Your task to perform on an android device: Go to display settings Image 0: 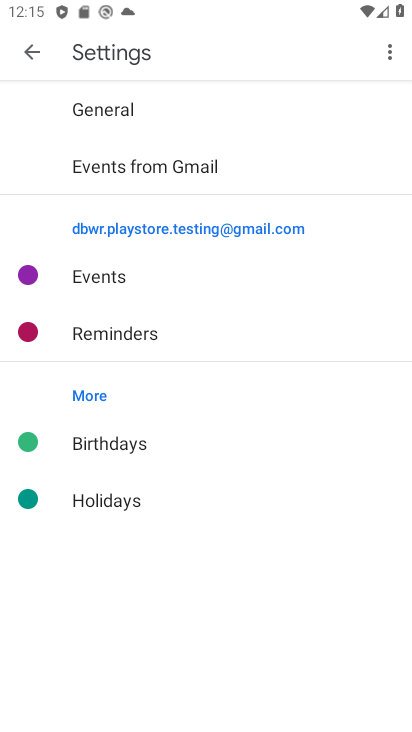
Step 0: press back button
Your task to perform on an android device: Go to display settings Image 1: 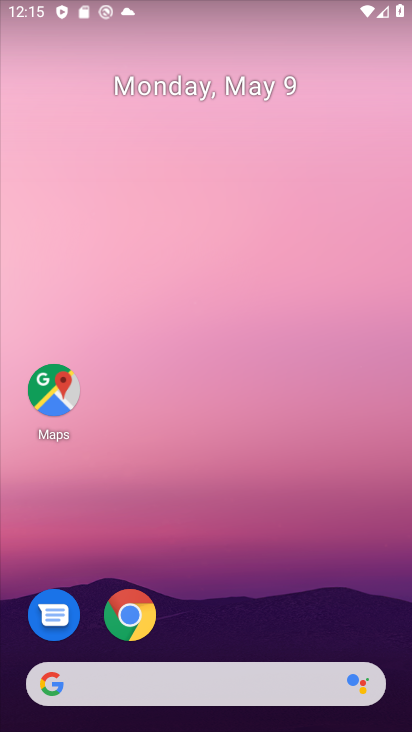
Step 1: drag from (250, 541) to (235, 103)
Your task to perform on an android device: Go to display settings Image 2: 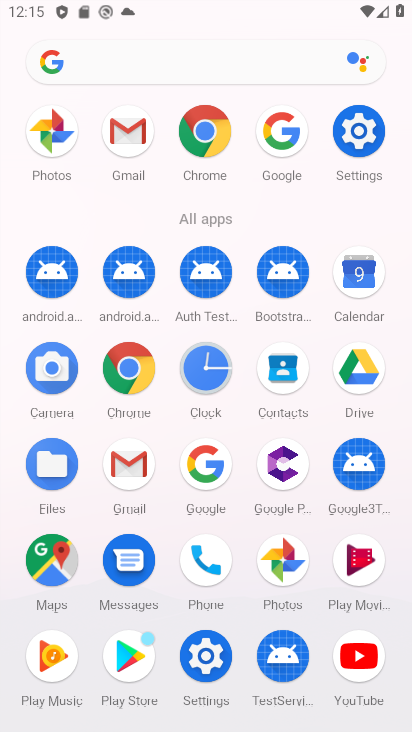
Step 2: click (361, 133)
Your task to perform on an android device: Go to display settings Image 3: 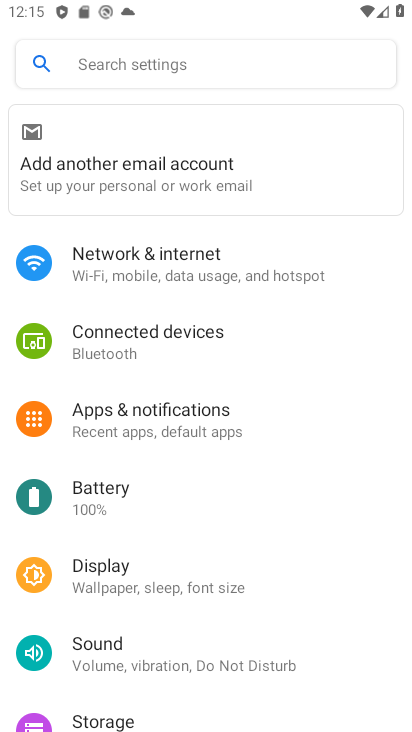
Step 3: drag from (174, 462) to (213, 340)
Your task to perform on an android device: Go to display settings Image 4: 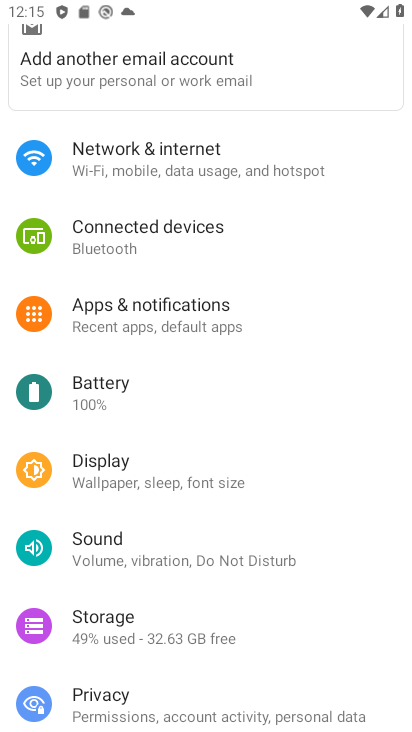
Step 4: click (111, 476)
Your task to perform on an android device: Go to display settings Image 5: 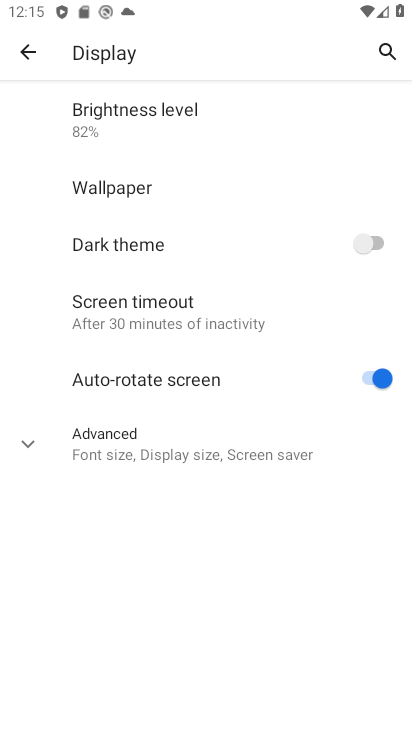
Step 5: task complete